Your task to perform on an android device: Open the stopwatch Image 0: 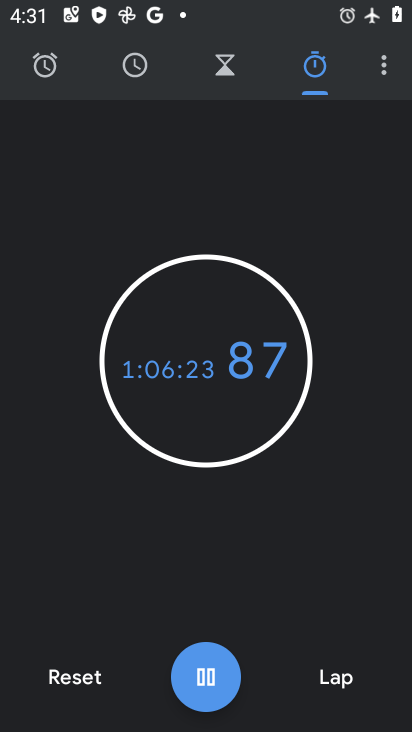
Step 0: press home button
Your task to perform on an android device: Open the stopwatch Image 1: 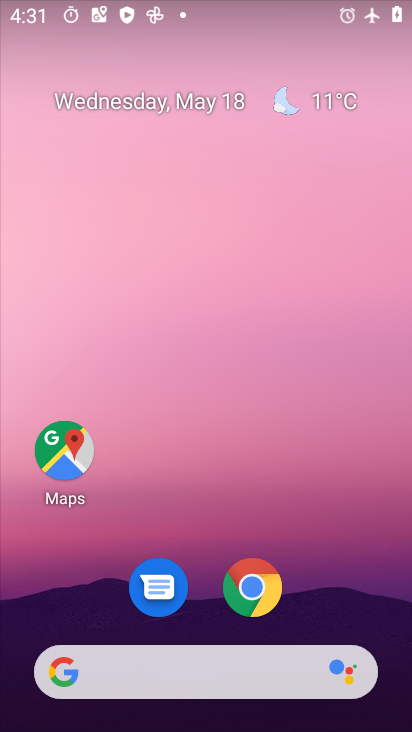
Step 1: drag from (294, 659) to (197, 175)
Your task to perform on an android device: Open the stopwatch Image 2: 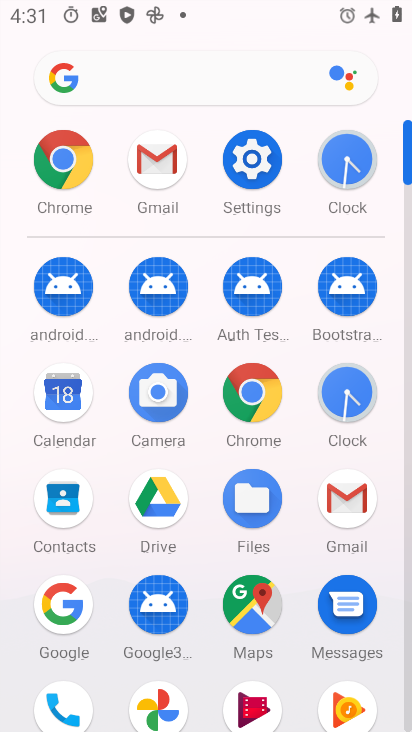
Step 2: click (362, 393)
Your task to perform on an android device: Open the stopwatch Image 3: 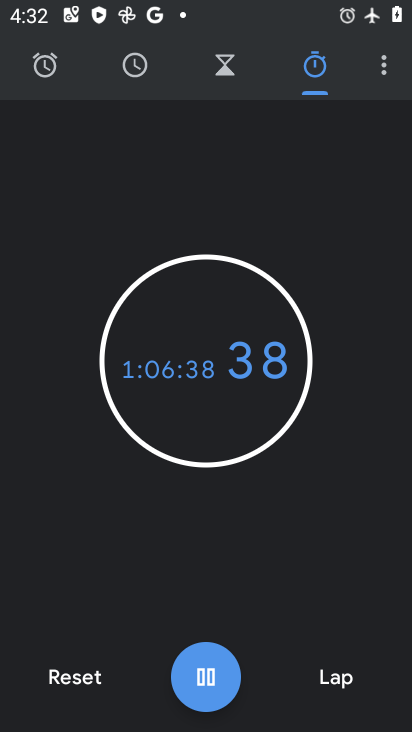
Step 3: task complete